Your task to perform on an android device: turn notification dots off Image 0: 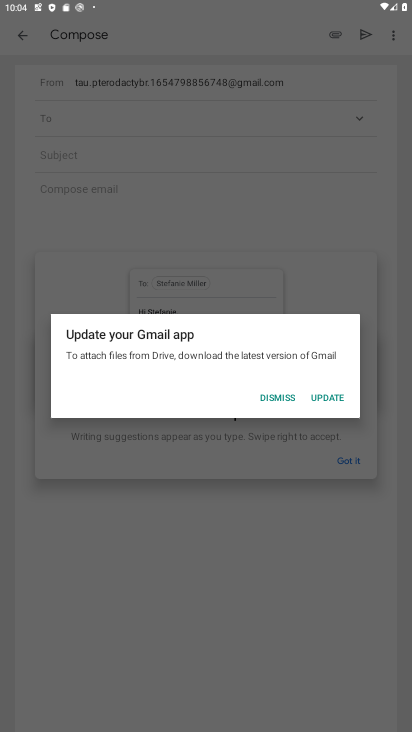
Step 0: press home button
Your task to perform on an android device: turn notification dots off Image 1: 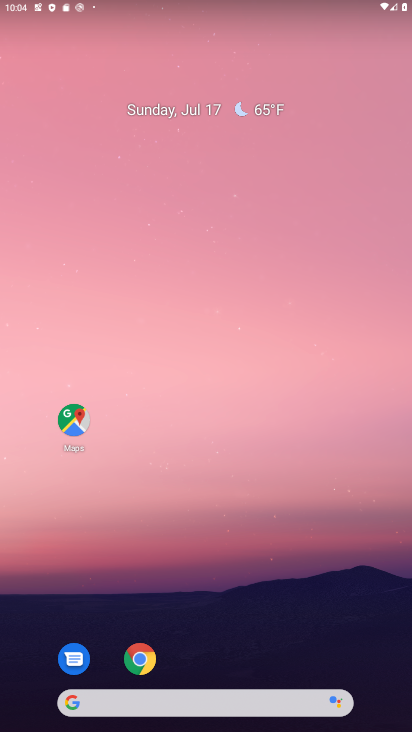
Step 1: drag from (239, 625) to (294, 143)
Your task to perform on an android device: turn notification dots off Image 2: 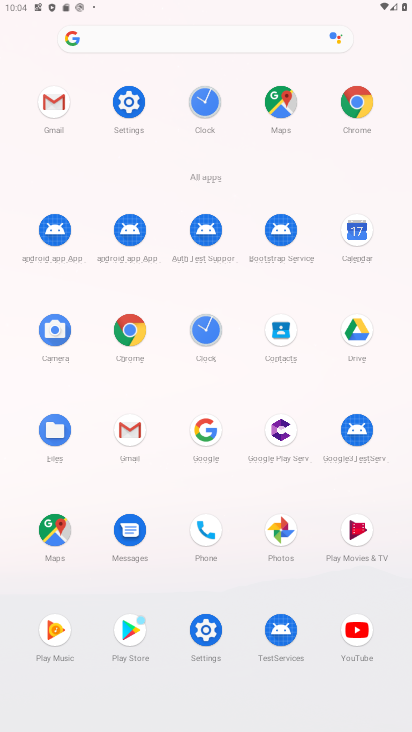
Step 2: click (128, 106)
Your task to perform on an android device: turn notification dots off Image 3: 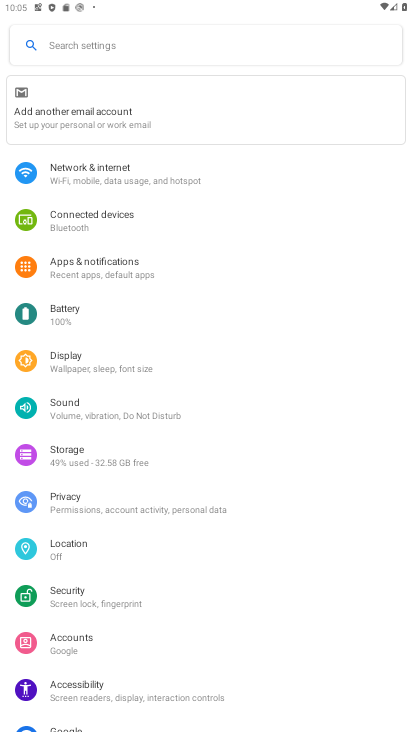
Step 3: click (155, 269)
Your task to perform on an android device: turn notification dots off Image 4: 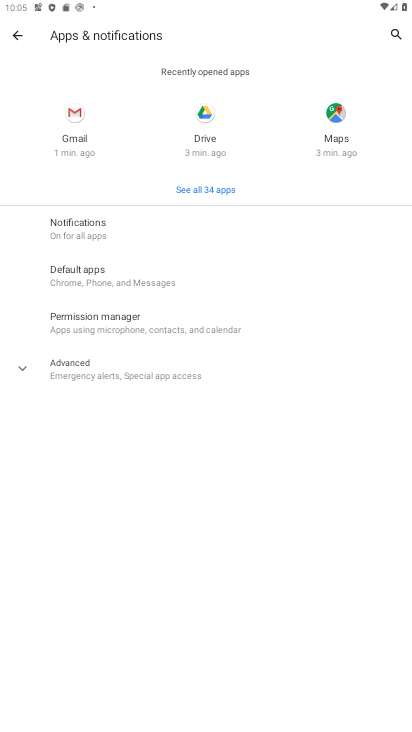
Step 4: click (112, 395)
Your task to perform on an android device: turn notification dots off Image 5: 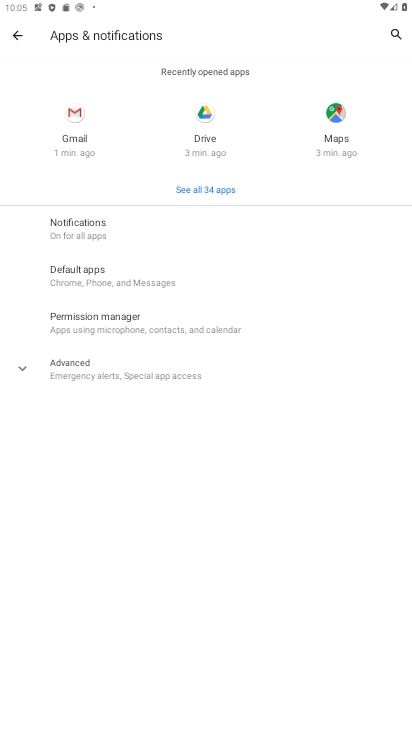
Step 5: click (84, 378)
Your task to perform on an android device: turn notification dots off Image 6: 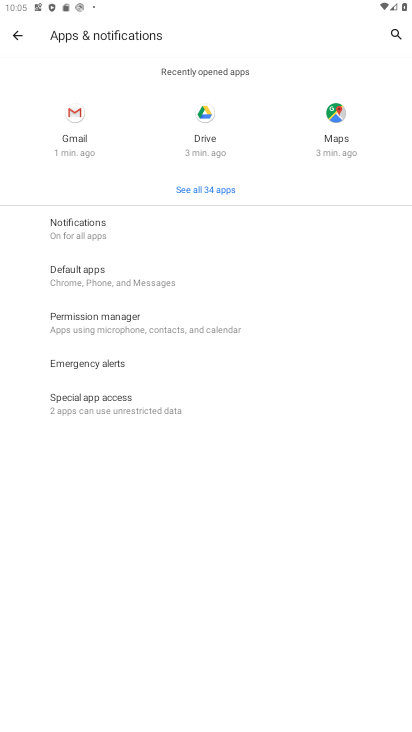
Step 6: click (114, 221)
Your task to perform on an android device: turn notification dots off Image 7: 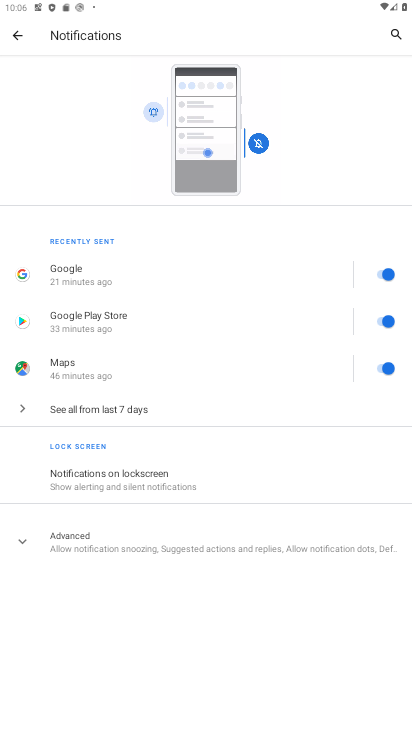
Step 7: click (198, 484)
Your task to perform on an android device: turn notification dots off Image 8: 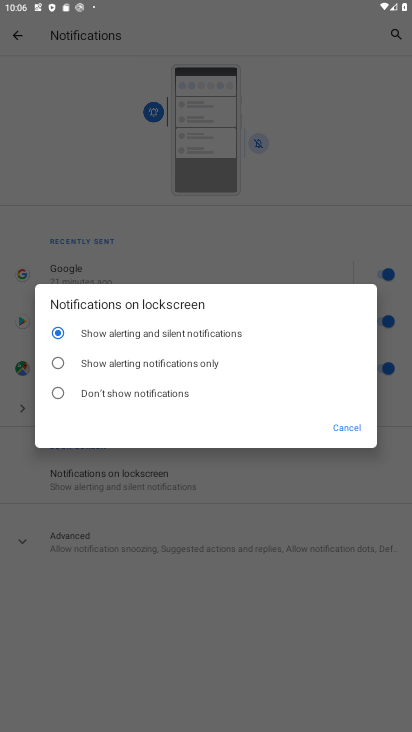
Step 8: click (131, 398)
Your task to perform on an android device: turn notification dots off Image 9: 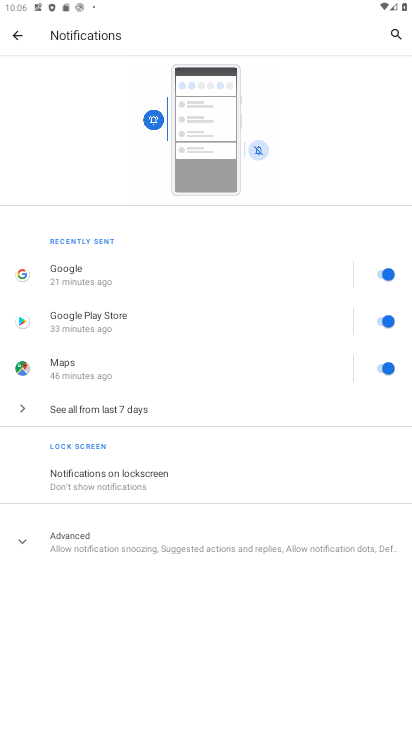
Step 9: task complete